Your task to perform on an android device: Open the Play Movies app and select the watchlist tab. Image 0: 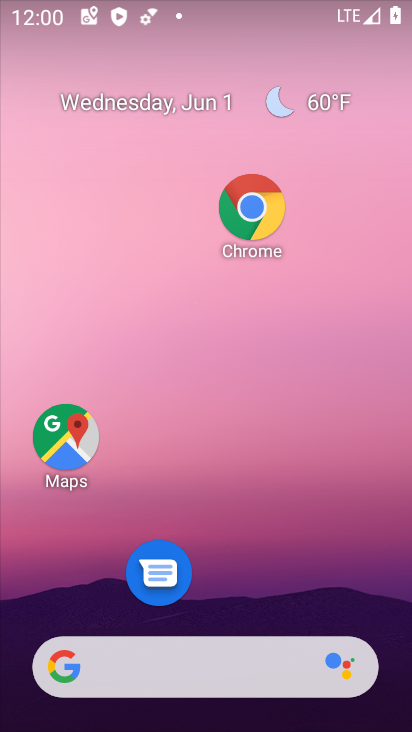
Step 0: drag from (226, 597) to (193, 187)
Your task to perform on an android device: Open the Play Movies app and select the watchlist tab. Image 1: 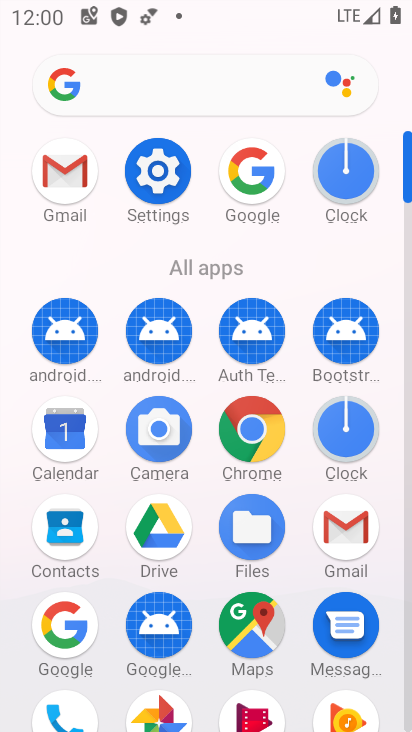
Step 1: drag from (209, 586) to (214, 396)
Your task to perform on an android device: Open the Play Movies app and select the watchlist tab. Image 2: 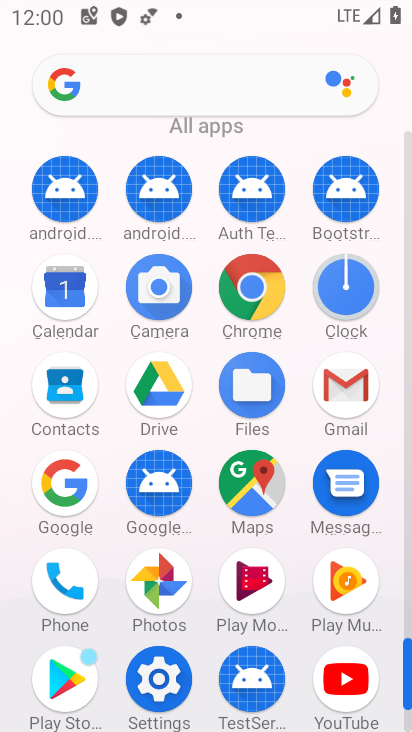
Step 2: click (238, 565)
Your task to perform on an android device: Open the Play Movies app and select the watchlist tab. Image 3: 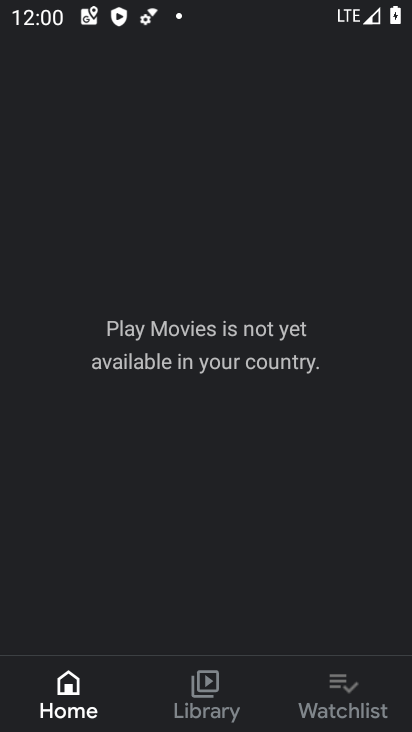
Step 3: click (325, 656)
Your task to perform on an android device: Open the Play Movies app and select the watchlist tab. Image 4: 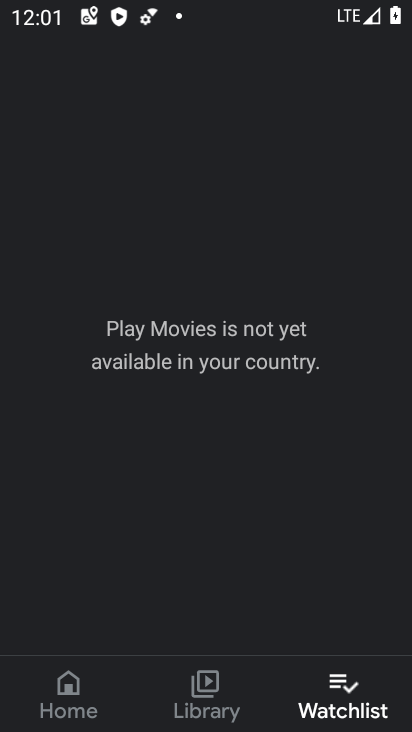
Step 4: task complete